Your task to perform on an android device: Open the phone app and click the voicemail tab. Image 0: 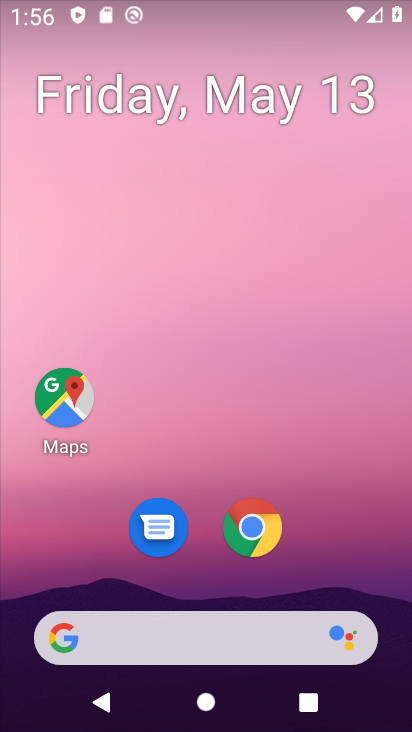
Step 0: drag from (198, 598) to (254, 7)
Your task to perform on an android device: Open the phone app and click the voicemail tab. Image 1: 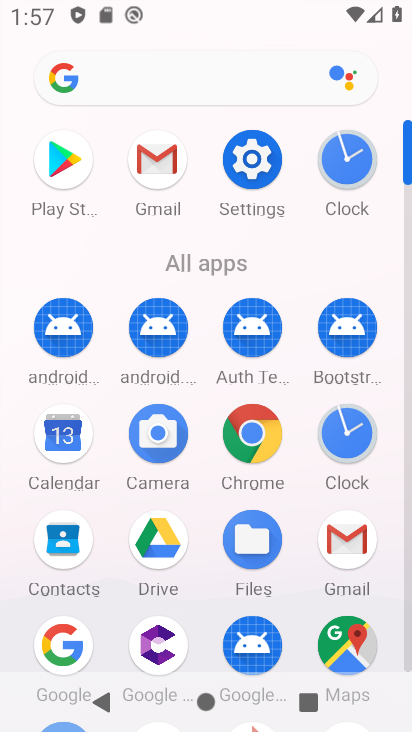
Step 1: drag from (208, 569) to (198, 151)
Your task to perform on an android device: Open the phone app and click the voicemail tab. Image 2: 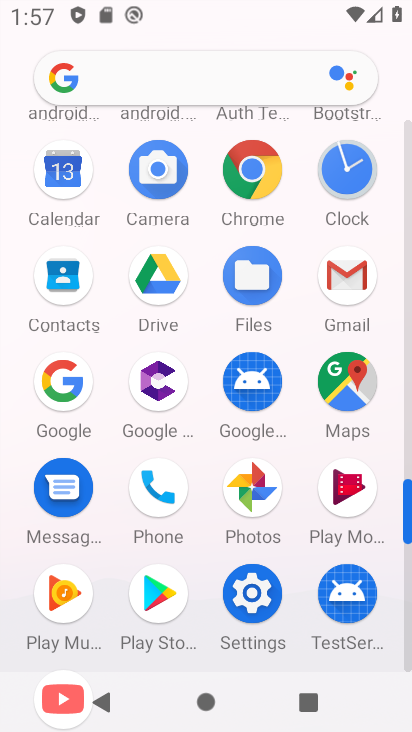
Step 2: click (157, 464)
Your task to perform on an android device: Open the phone app and click the voicemail tab. Image 3: 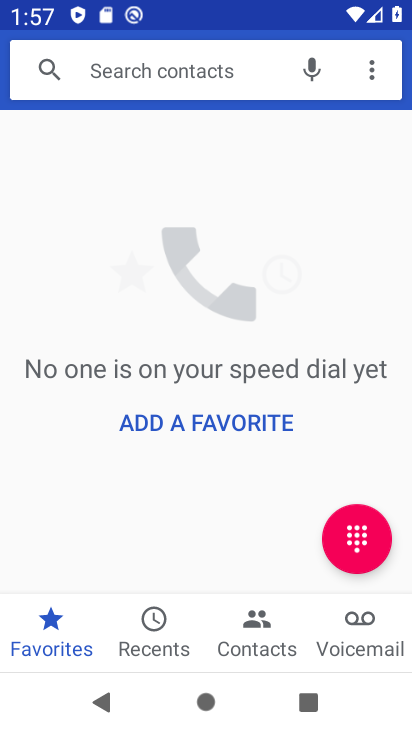
Step 3: click (366, 646)
Your task to perform on an android device: Open the phone app and click the voicemail tab. Image 4: 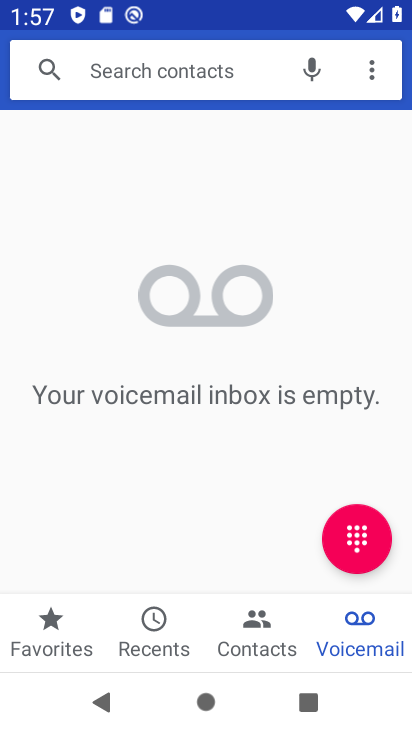
Step 4: task complete